Your task to perform on an android device: Go to location settings Image 0: 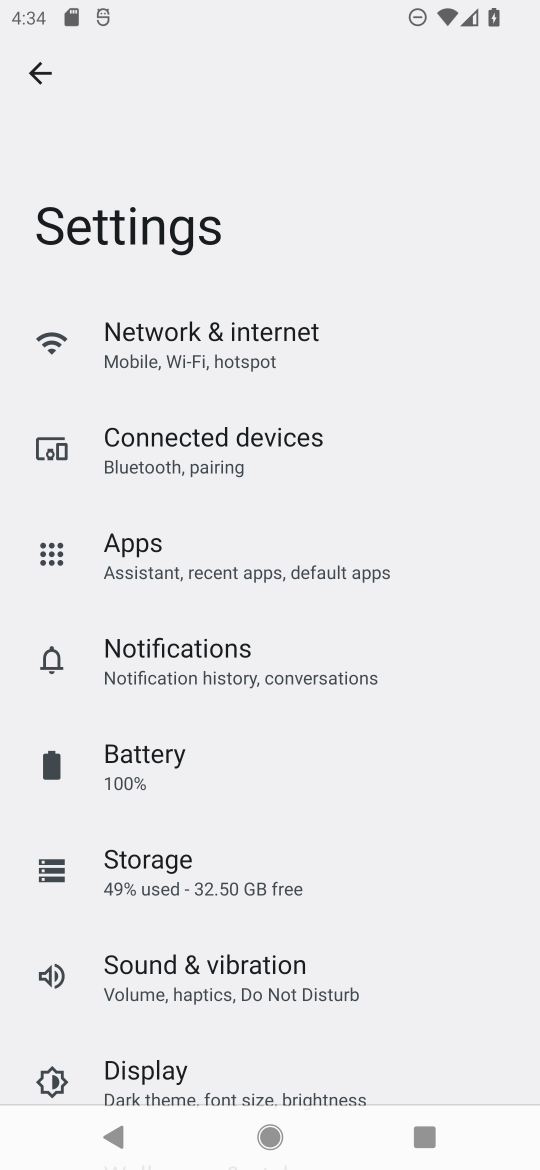
Step 0: drag from (222, 903) to (219, 55)
Your task to perform on an android device: Go to location settings Image 1: 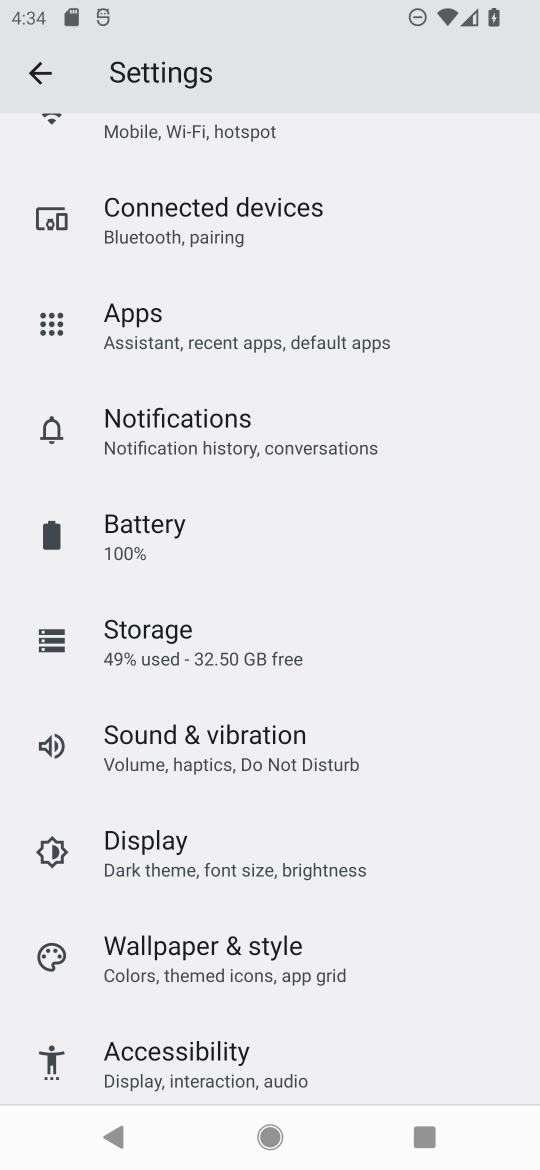
Step 1: drag from (251, 1048) to (273, 292)
Your task to perform on an android device: Go to location settings Image 2: 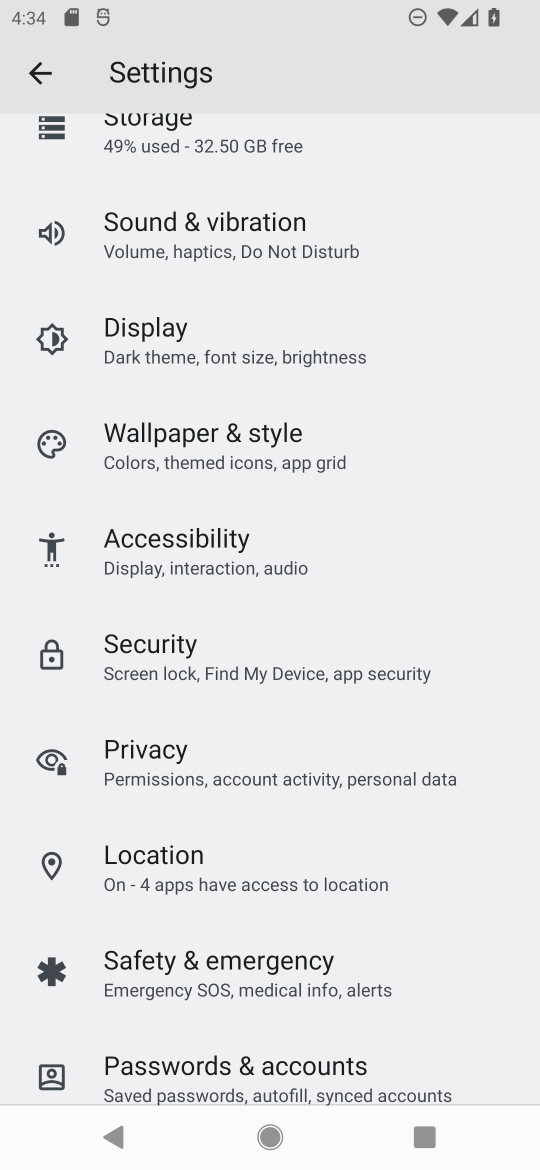
Step 2: click (144, 864)
Your task to perform on an android device: Go to location settings Image 3: 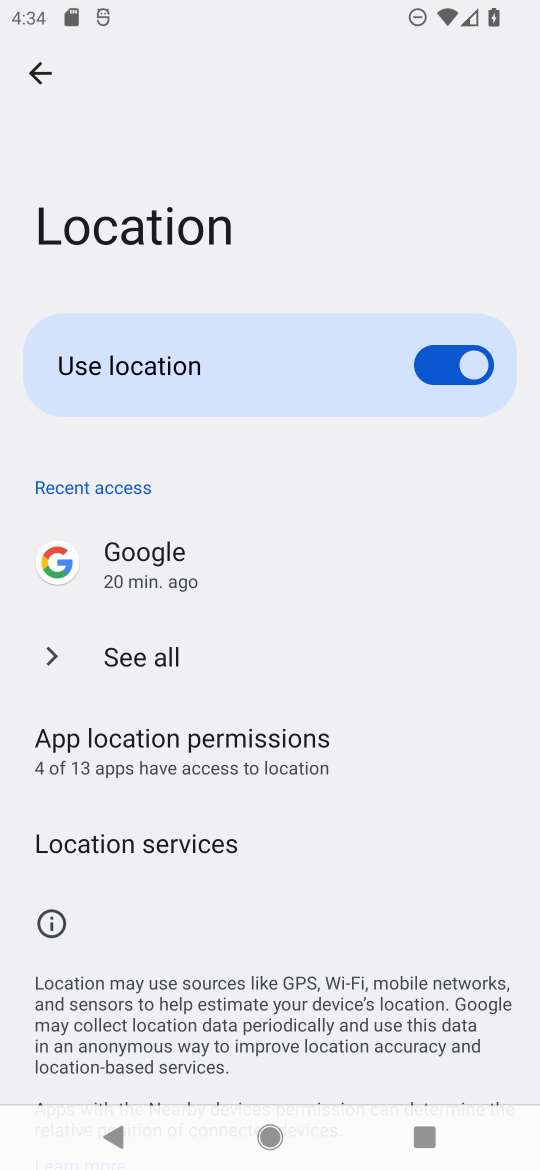
Step 3: drag from (289, 701) to (303, 400)
Your task to perform on an android device: Go to location settings Image 4: 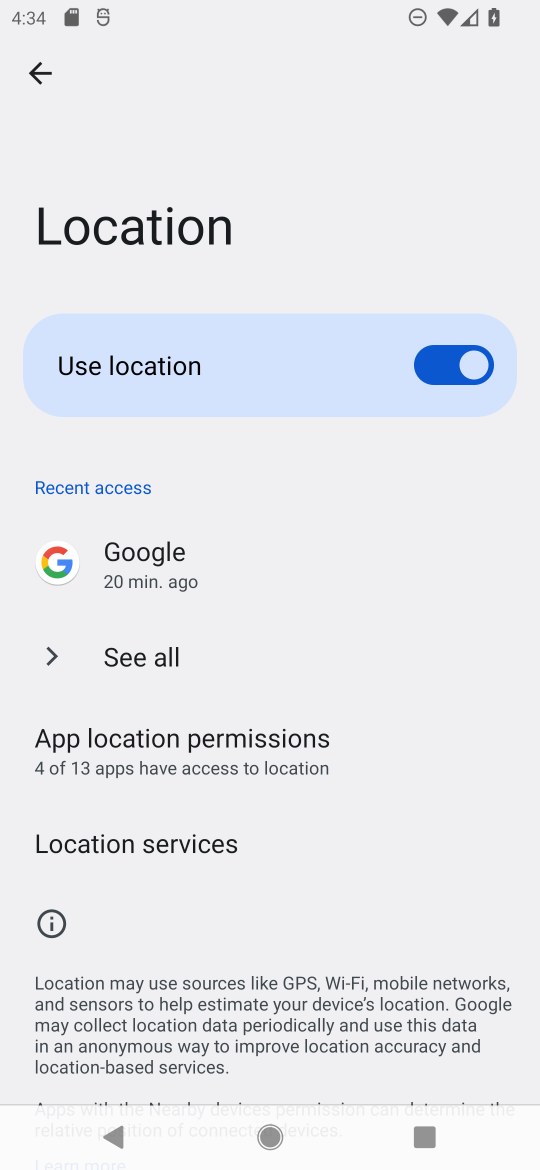
Step 4: drag from (167, 1045) to (300, 153)
Your task to perform on an android device: Go to location settings Image 5: 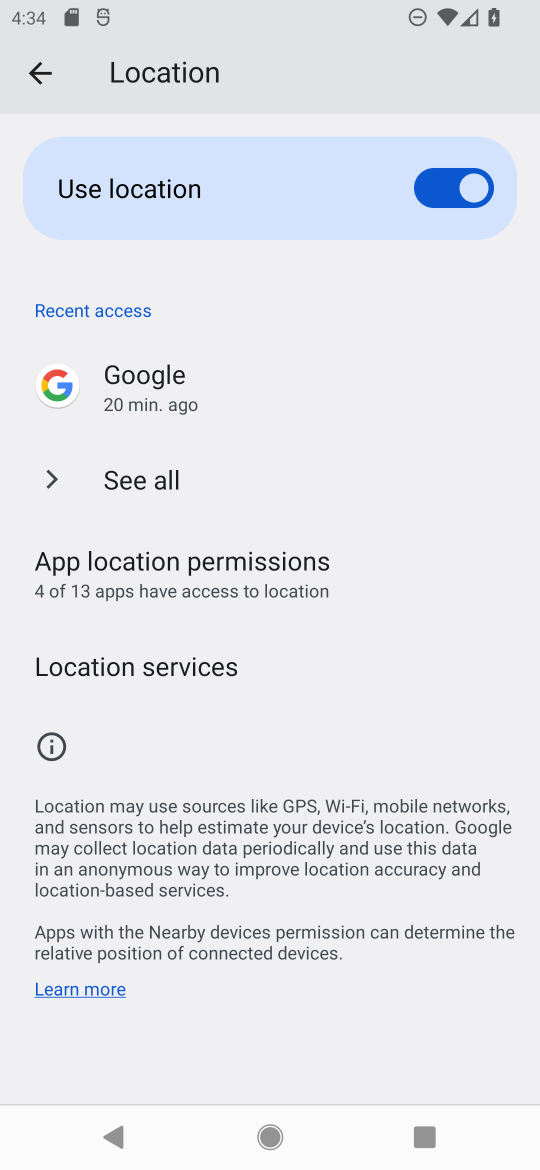
Step 5: click (181, 662)
Your task to perform on an android device: Go to location settings Image 6: 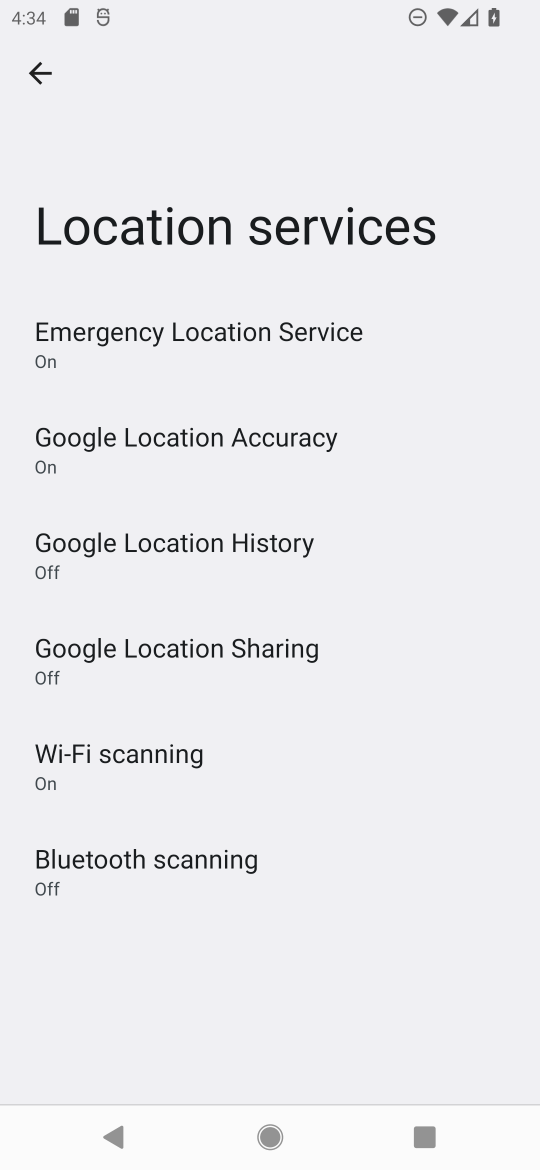
Step 6: task complete